Your task to perform on an android device: turn off notifications settings in the gmail app Image 0: 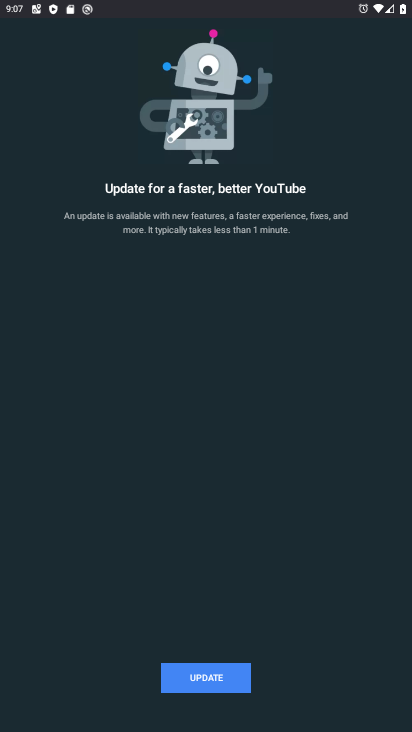
Step 0: press home button
Your task to perform on an android device: turn off notifications settings in the gmail app Image 1: 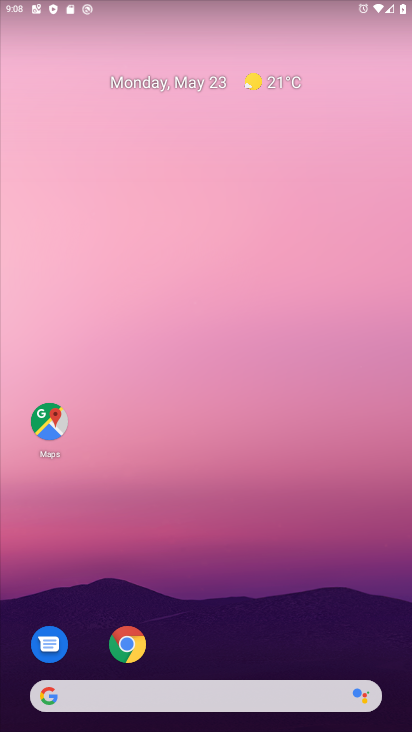
Step 1: drag from (38, 730) to (107, 19)
Your task to perform on an android device: turn off notifications settings in the gmail app Image 2: 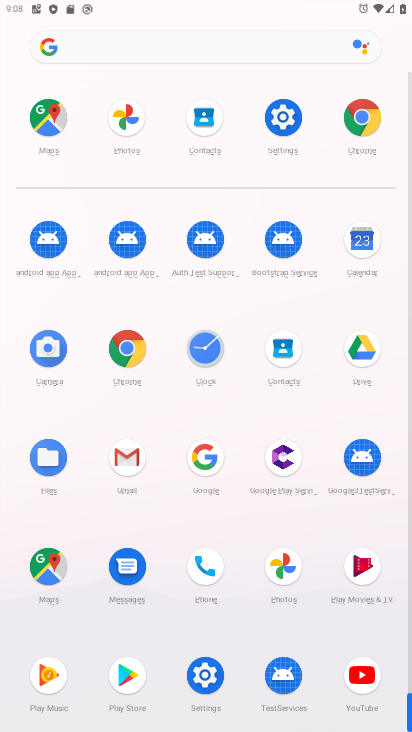
Step 2: click (126, 458)
Your task to perform on an android device: turn off notifications settings in the gmail app Image 3: 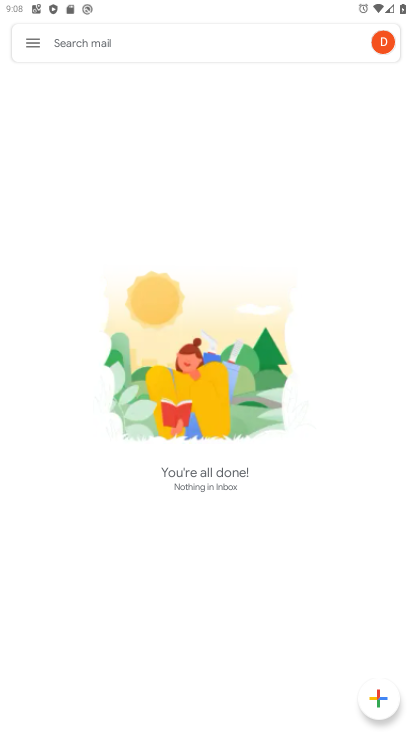
Step 3: press home button
Your task to perform on an android device: turn off notifications settings in the gmail app Image 4: 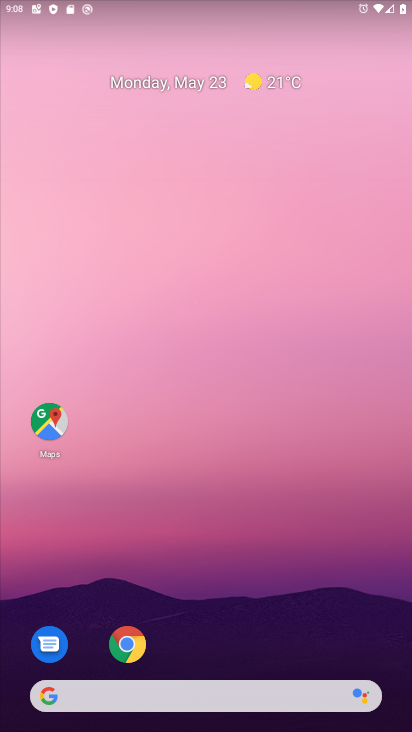
Step 4: drag from (250, 723) to (297, 99)
Your task to perform on an android device: turn off notifications settings in the gmail app Image 5: 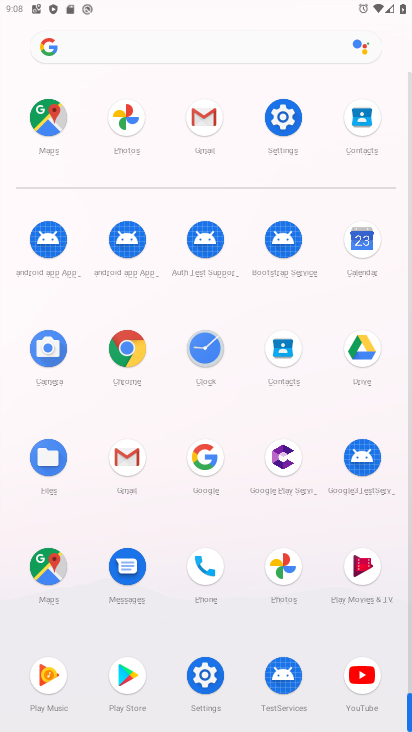
Step 5: click (203, 130)
Your task to perform on an android device: turn off notifications settings in the gmail app Image 6: 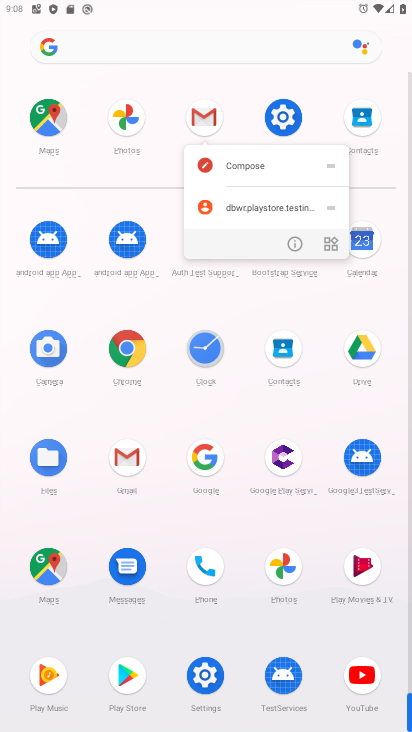
Step 6: click (288, 239)
Your task to perform on an android device: turn off notifications settings in the gmail app Image 7: 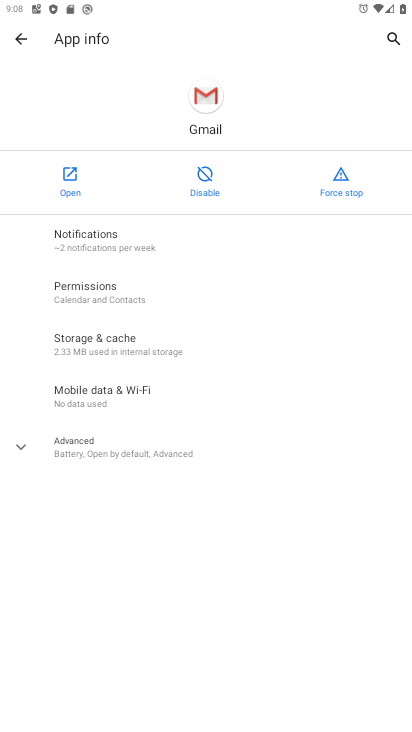
Step 7: click (237, 239)
Your task to perform on an android device: turn off notifications settings in the gmail app Image 8: 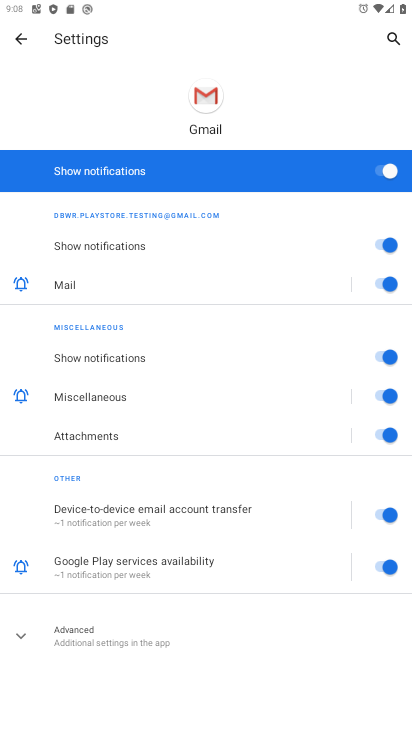
Step 8: click (391, 171)
Your task to perform on an android device: turn off notifications settings in the gmail app Image 9: 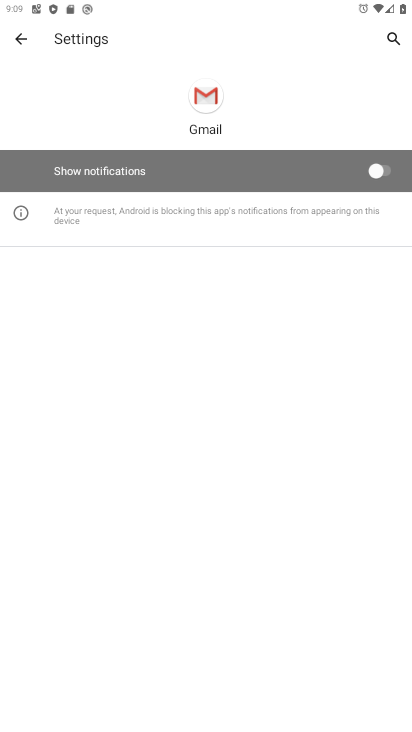
Step 9: task complete